Your task to perform on an android device: Open eBay Image 0: 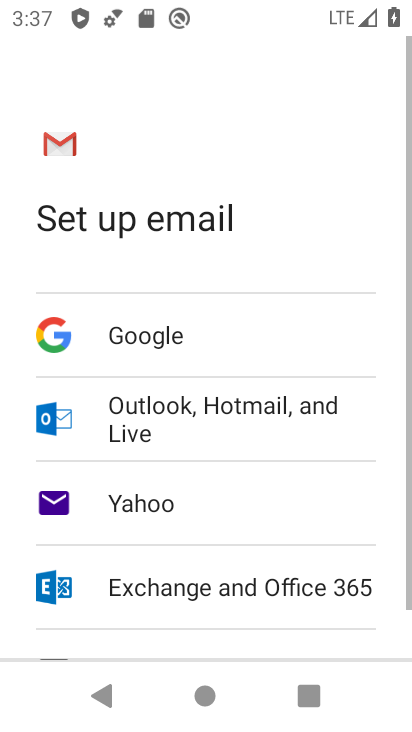
Step 0: press home button
Your task to perform on an android device: Open eBay Image 1: 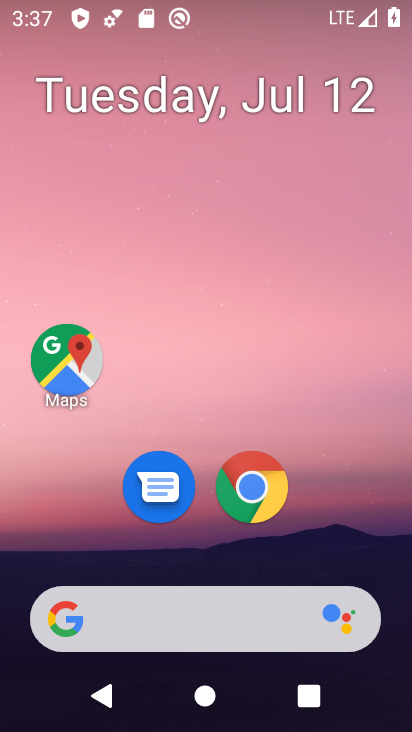
Step 1: drag from (187, 549) to (290, 170)
Your task to perform on an android device: Open eBay Image 2: 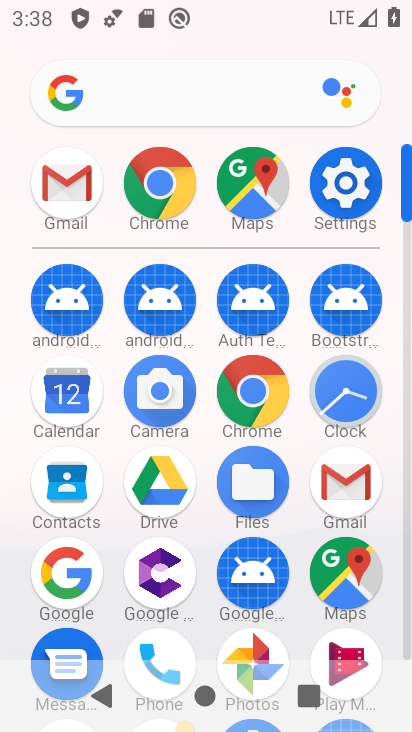
Step 2: click (153, 189)
Your task to perform on an android device: Open eBay Image 3: 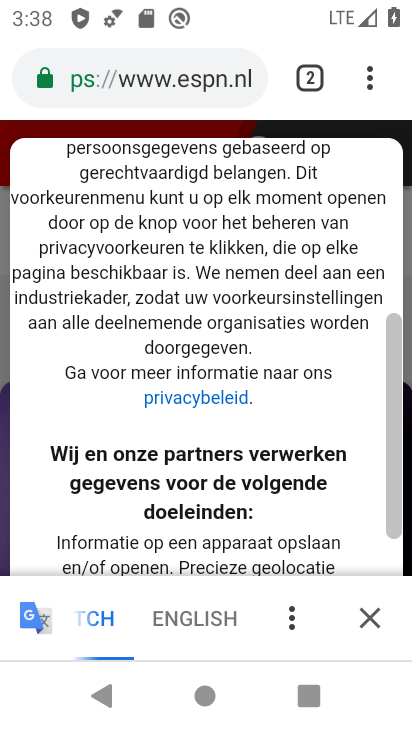
Step 3: click (177, 55)
Your task to perform on an android device: Open eBay Image 4: 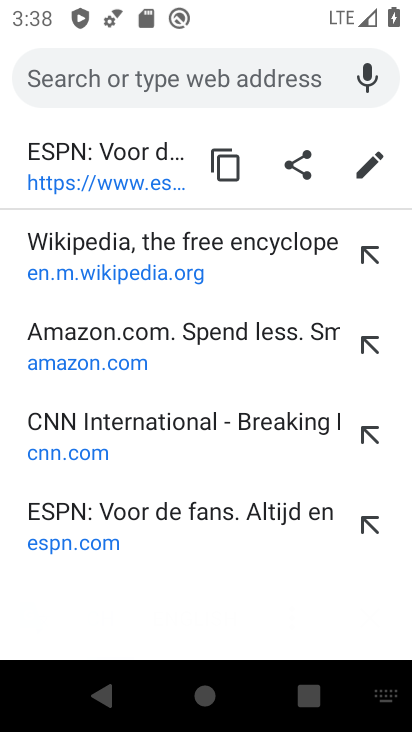
Step 4: type "ebay"
Your task to perform on an android device: Open eBay Image 5: 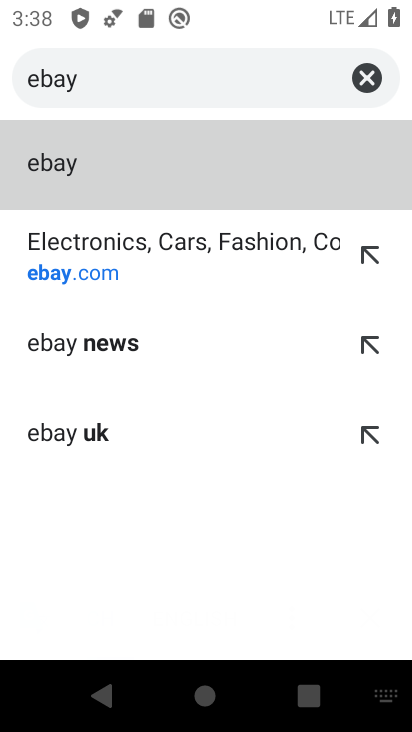
Step 5: click (237, 265)
Your task to perform on an android device: Open eBay Image 6: 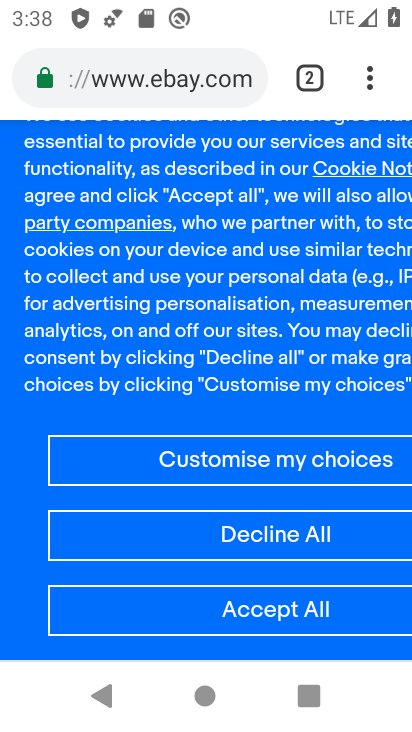
Step 6: task complete